Your task to perform on an android device: Check the news Image 0: 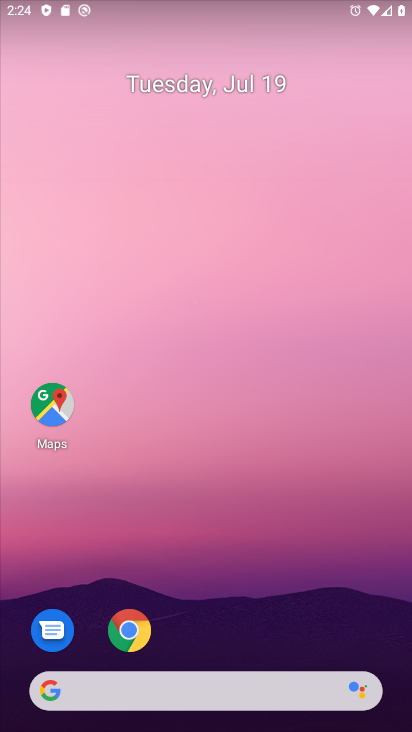
Step 0: drag from (228, 606) to (305, 27)
Your task to perform on an android device: Check the news Image 1: 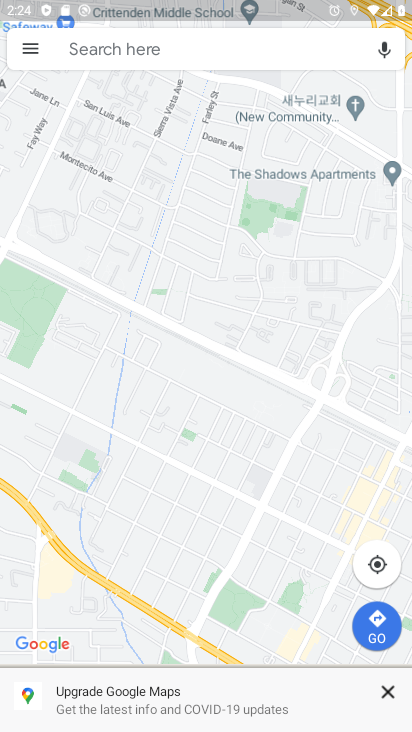
Step 1: press home button
Your task to perform on an android device: Check the news Image 2: 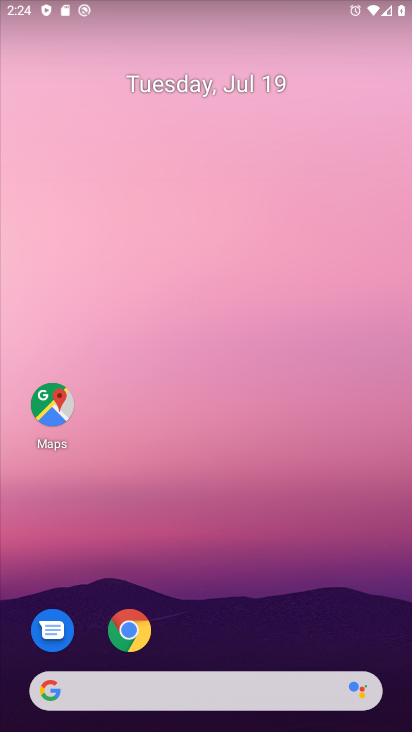
Step 2: click (229, 707)
Your task to perform on an android device: Check the news Image 3: 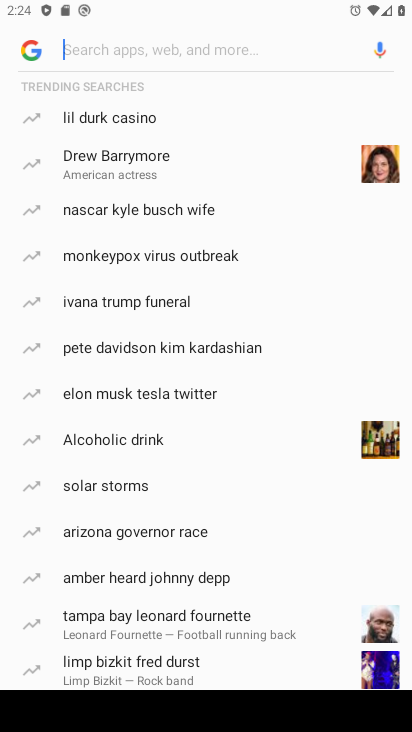
Step 3: type "news"
Your task to perform on an android device: Check the news Image 4: 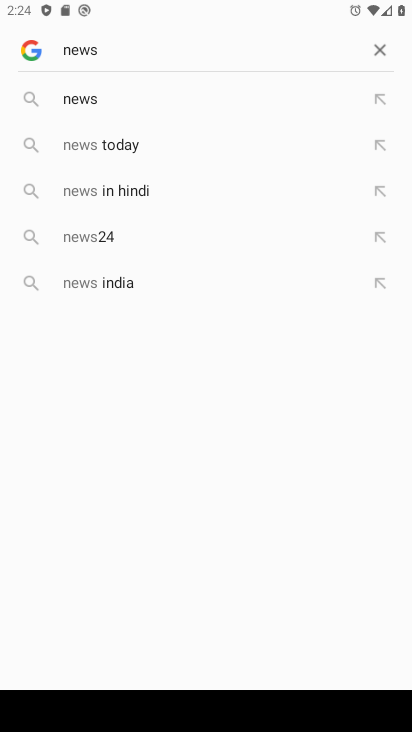
Step 4: click (98, 133)
Your task to perform on an android device: Check the news Image 5: 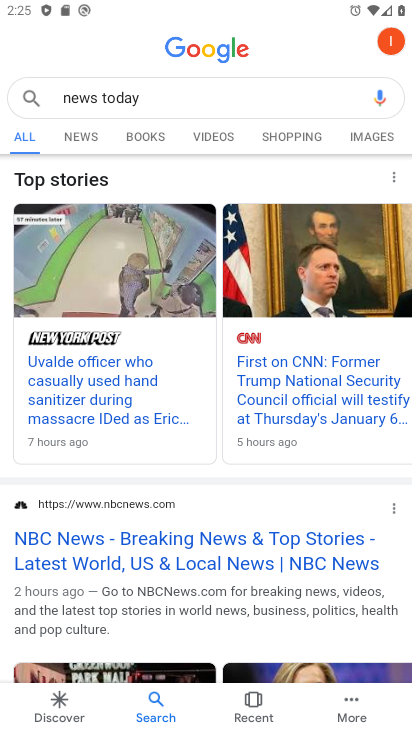
Step 5: click (83, 133)
Your task to perform on an android device: Check the news Image 6: 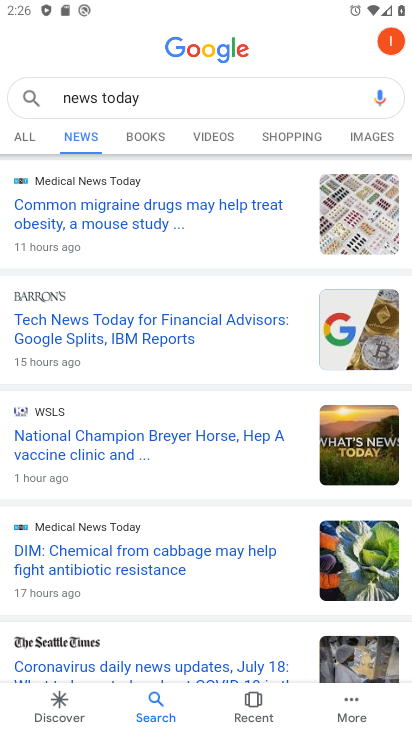
Step 6: task complete